Your task to perform on an android device: find which apps use the phone's location Image 0: 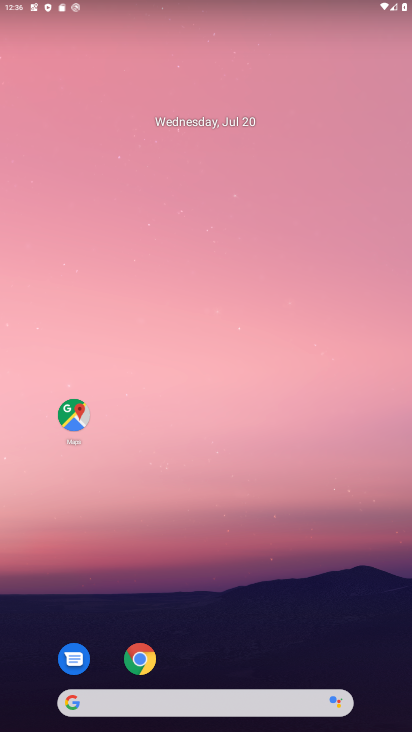
Step 0: drag from (303, 567) to (352, 348)
Your task to perform on an android device: find which apps use the phone's location Image 1: 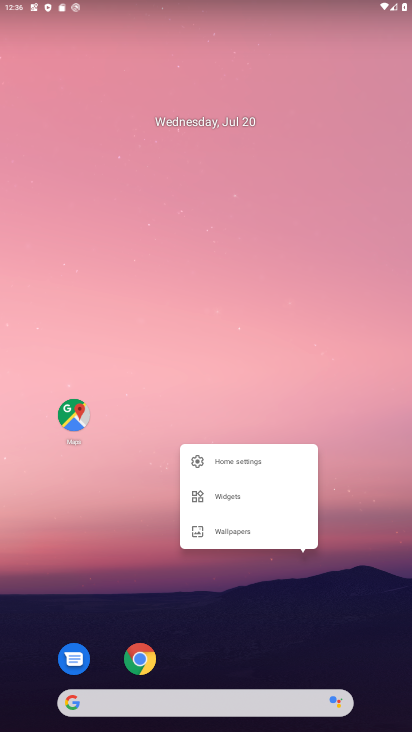
Step 1: click (357, 534)
Your task to perform on an android device: find which apps use the phone's location Image 2: 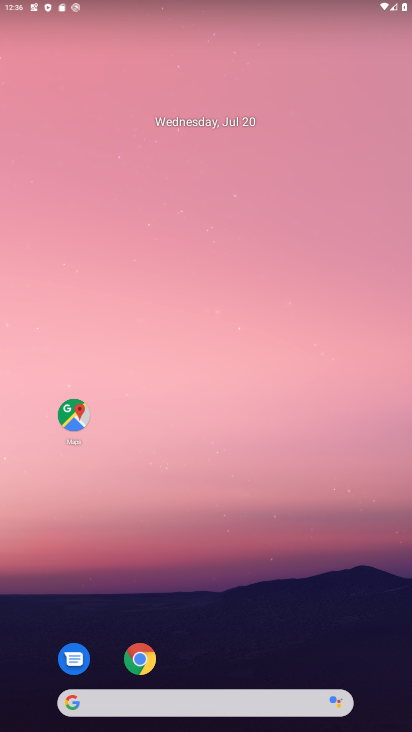
Step 2: drag from (357, 534) to (251, 188)
Your task to perform on an android device: find which apps use the phone's location Image 3: 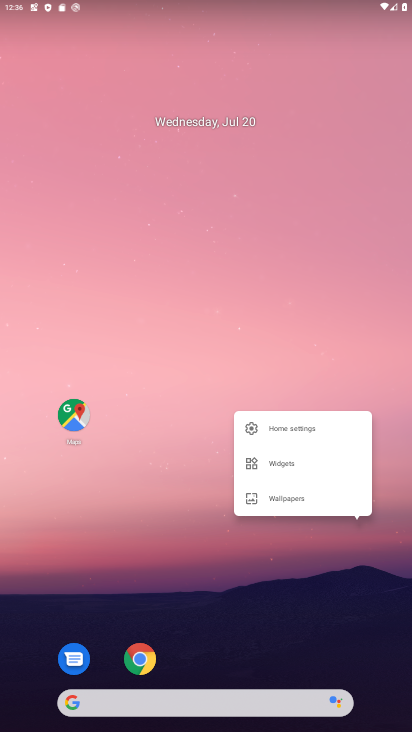
Step 3: click (127, 436)
Your task to perform on an android device: find which apps use the phone's location Image 4: 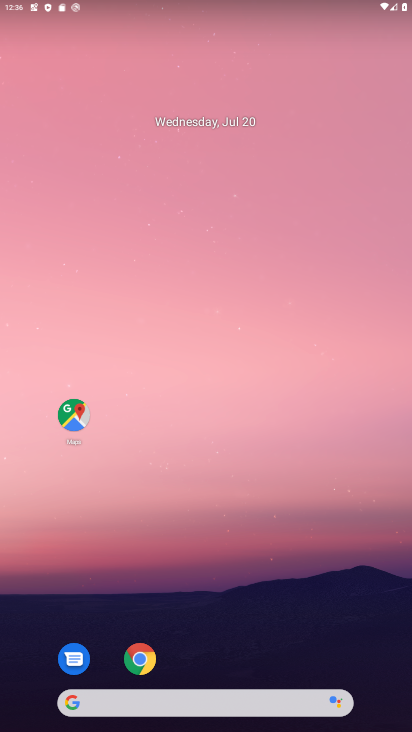
Step 4: drag from (224, 525) to (263, 214)
Your task to perform on an android device: find which apps use the phone's location Image 5: 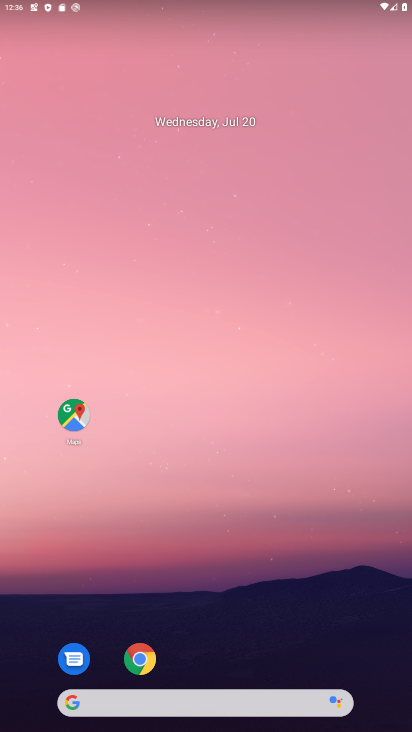
Step 5: drag from (289, 560) to (233, 114)
Your task to perform on an android device: find which apps use the phone's location Image 6: 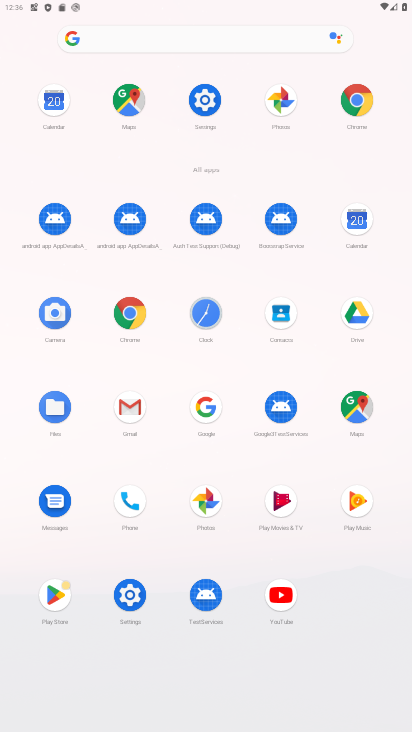
Step 6: click (126, 596)
Your task to perform on an android device: find which apps use the phone's location Image 7: 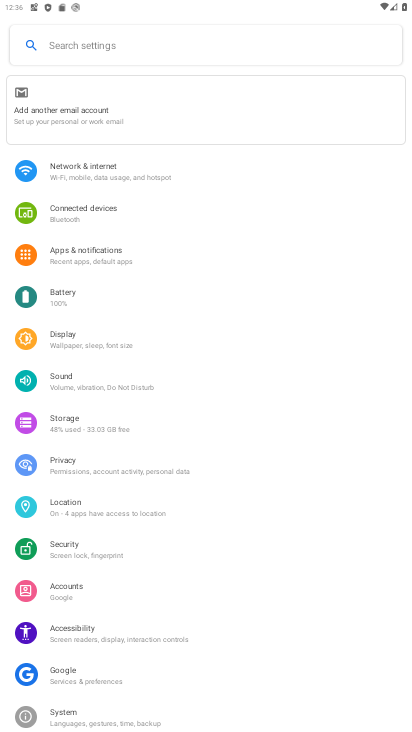
Step 7: task complete